Your task to perform on an android device: Show me the alarms in the clock app Image 0: 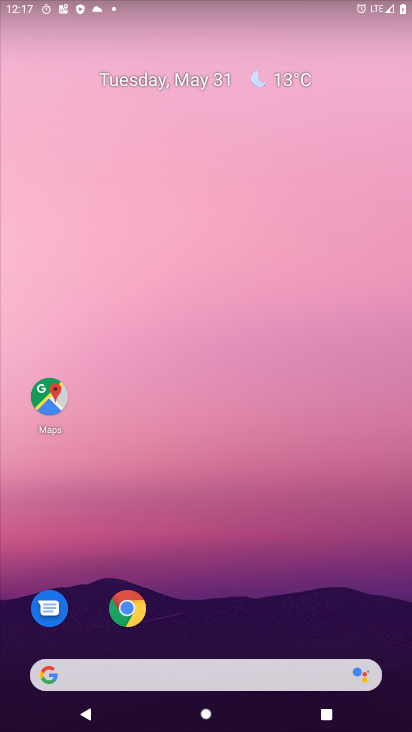
Step 0: drag from (304, 633) to (295, 6)
Your task to perform on an android device: Show me the alarms in the clock app Image 1: 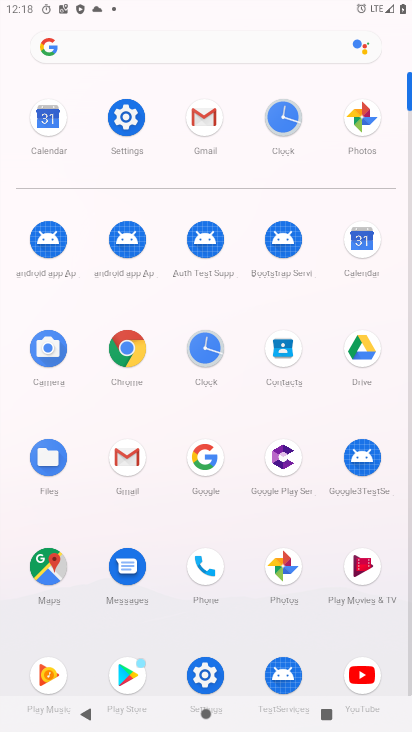
Step 1: click (277, 118)
Your task to perform on an android device: Show me the alarms in the clock app Image 2: 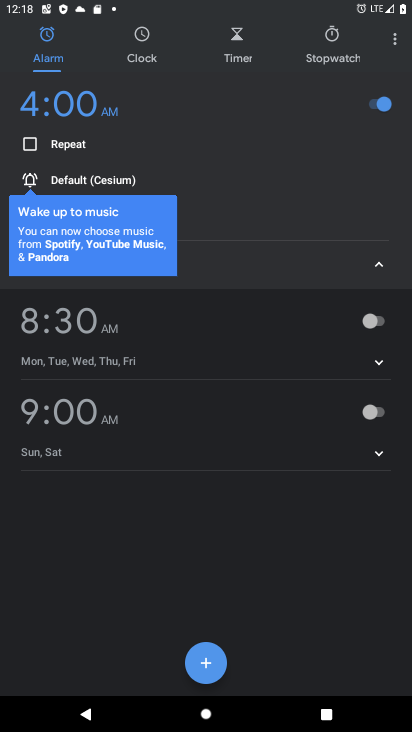
Step 2: task complete